Your task to perform on an android device: add a contact Image 0: 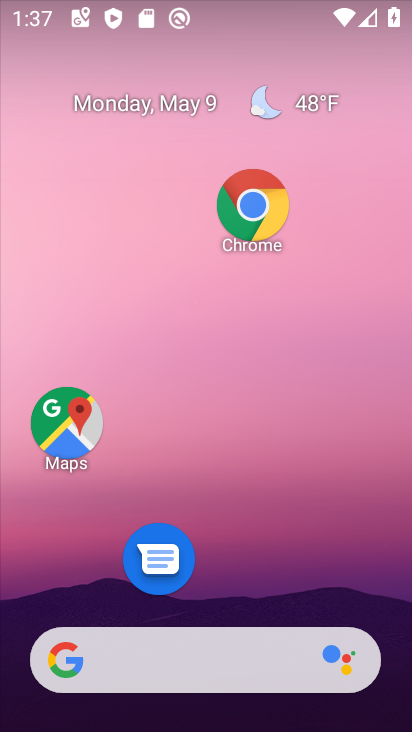
Step 0: drag from (301, 412) to (312, 253)
Your task to perform on an android device: add a contact Image 1: 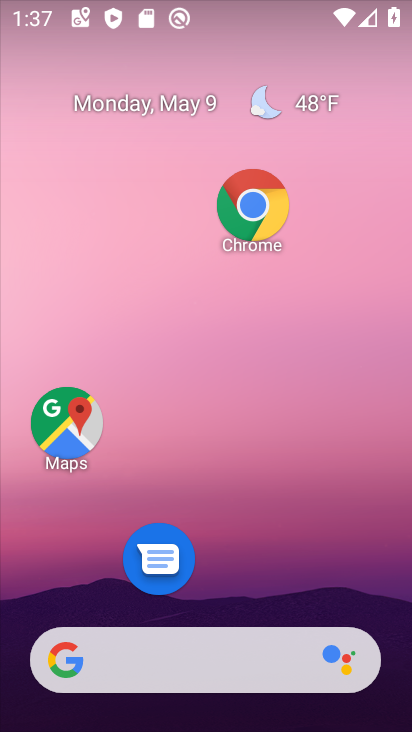
Step 1: drag from (291, 579) to (327, 257)
Your task to perform on an android device: add a contact Image 2: 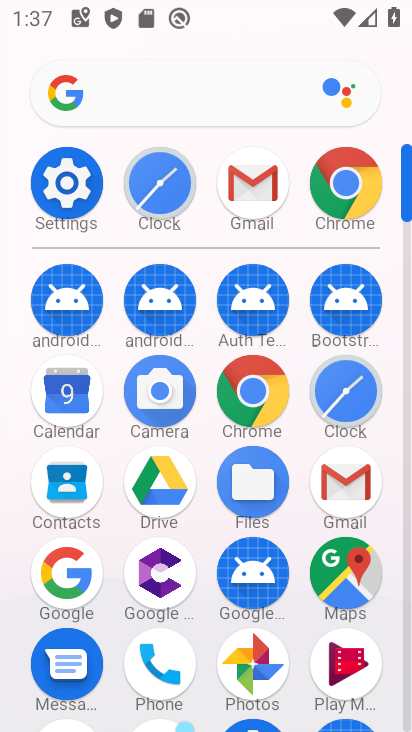
Step 2: click (153, 647)
Your task to perform on an android device: add a contact Image 3: 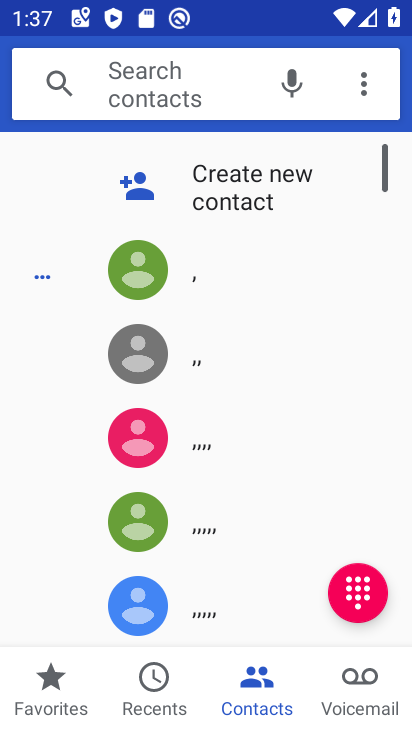
Step 3: click (244, 188)
Your task to perform on an android device: add a contact Image 4: 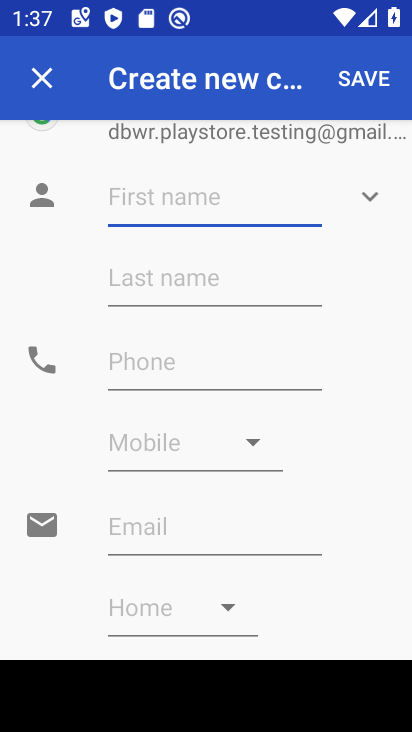
Step 4: type "hhhhhhhhhhhhhhhhhh"
Your task to perform on an android device: add a contact Image 5: 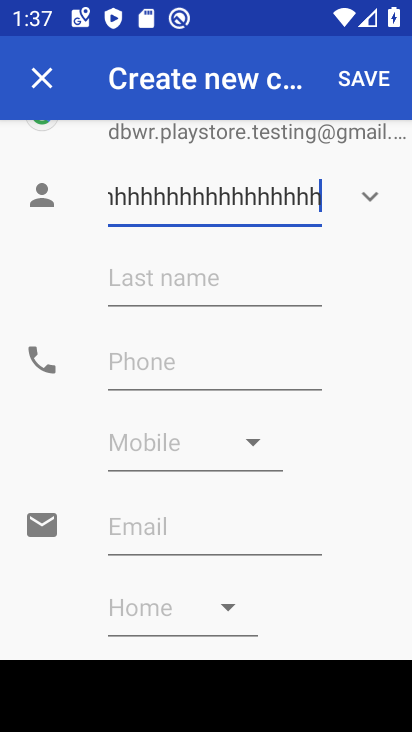
Step 5: click (217, 340)
Your task to perform on an android device: add a contact Image 6: 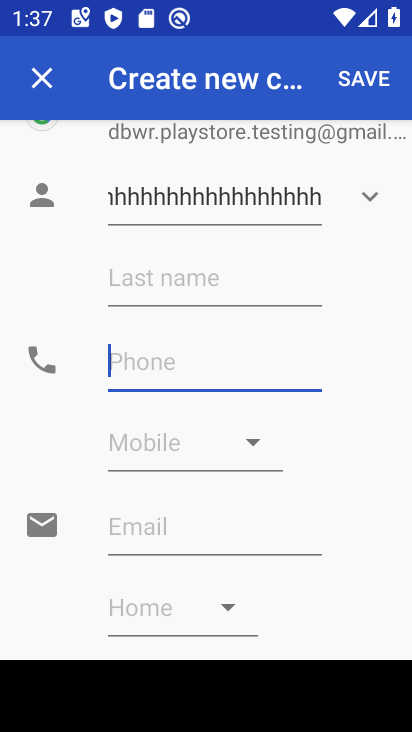
Step 6: type "88888888888888"
Your task to perform on an android device: add a contact Image 7: 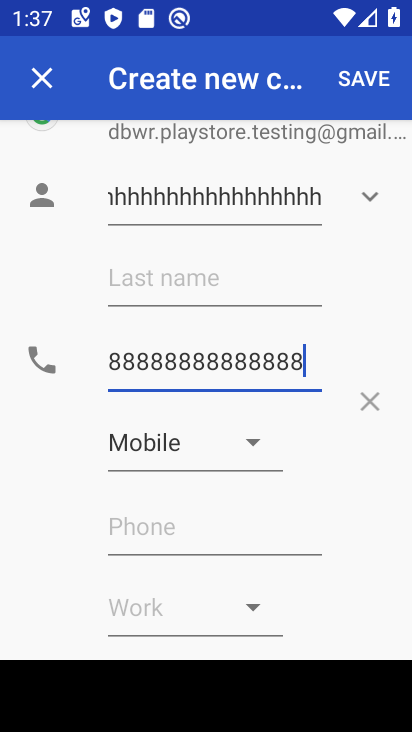
Step 7: click (365, 69)
Your task to perform on an android device: add a contact Image 8: 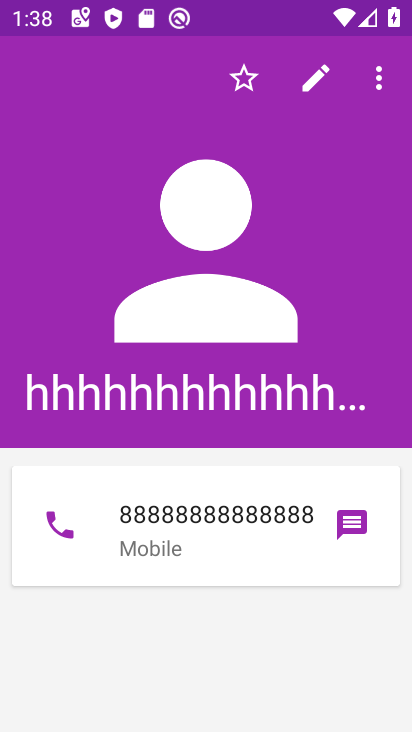
Step 8: task complete